Your task to perform on an android device: What's on my calendar tomorrow? Image 0: 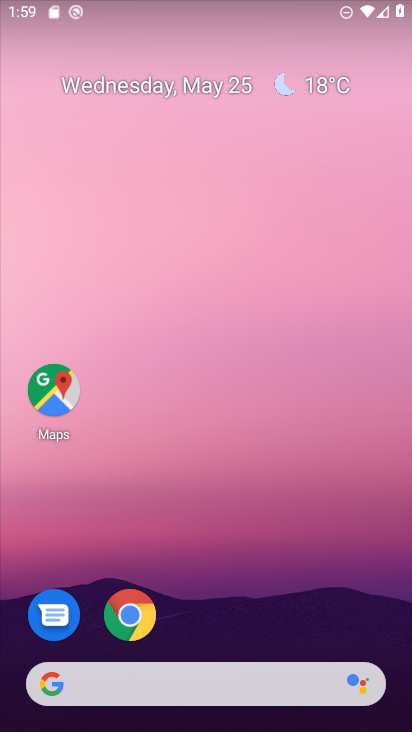
Step 0: drag from (237, 572) to (313, 29)
Your task to perform on an android device: What's on my calendar tomorrow? Image 1: 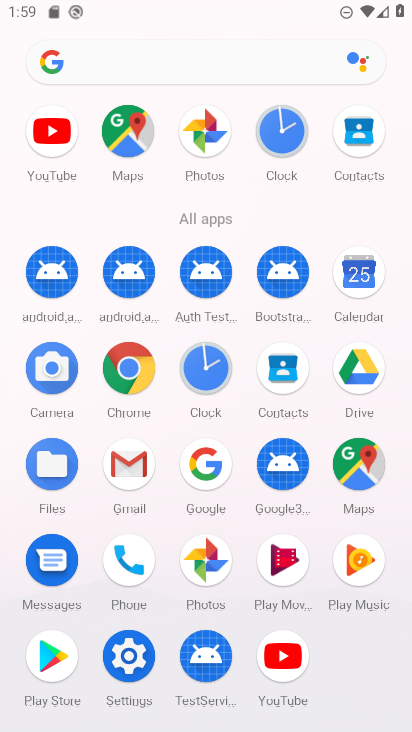
Step 1: click (357, 272)
Your task to perform on an android device: What's on my calendar tomorrow? Image 2: 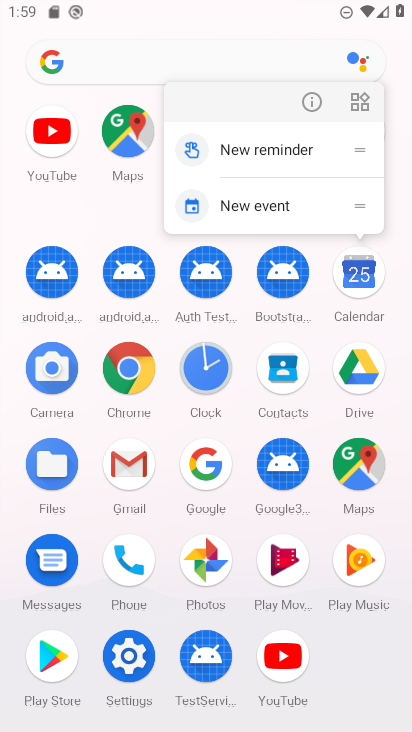
Step 2: click (357, 271)
Your task to perform on an android device: What's on my calendar tomorrow? Image 3: 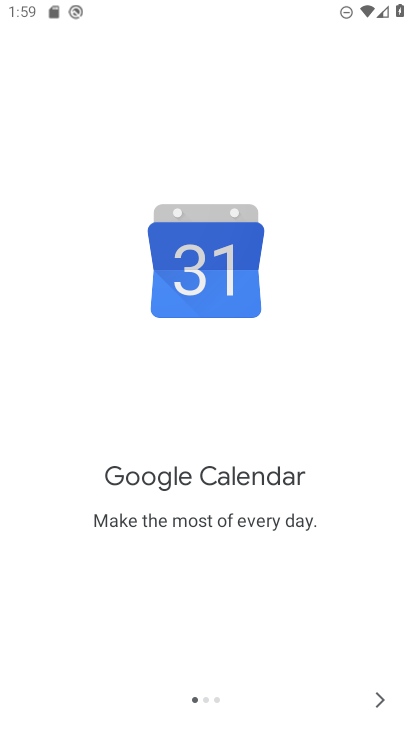
Step 3: click (378, 700)
Your task to perform on an android device: What's on my calendar tomorrow? Image 4: 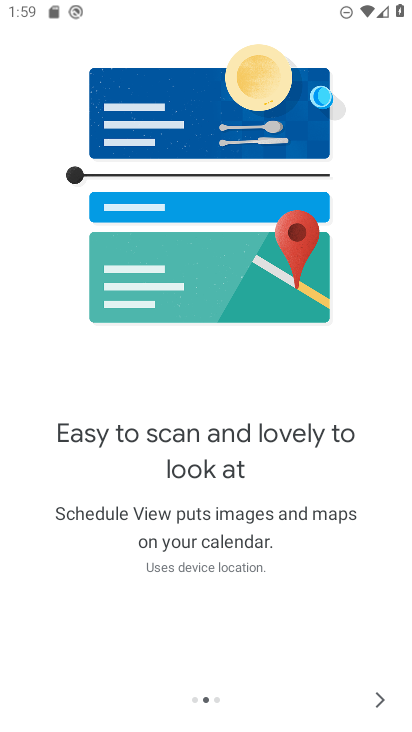
Step 4: click (378, 698)
Your task to perform on an android device: What's on my calendar tomorrow? Image 5: 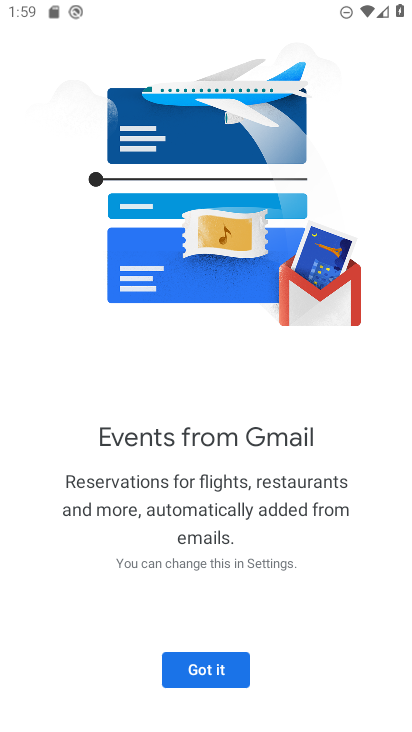
Step 5: click (237, 658)
Your task to perform on an android device: What's on my calendar tomorrow? Image 6: 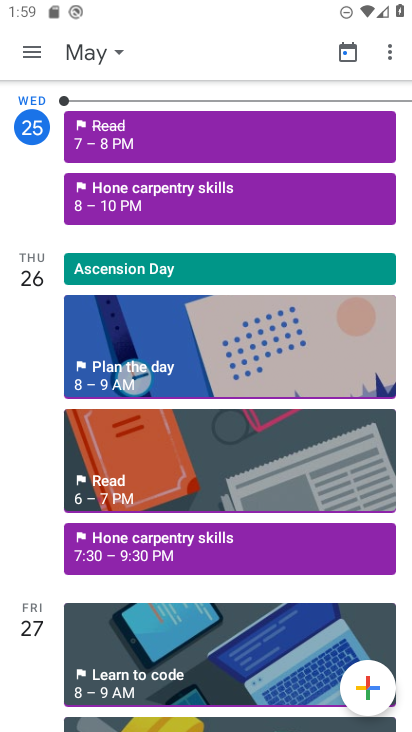
Step 6: task complete